Your task to perform on an android device: open app "Airtel Thanks" Image 0: 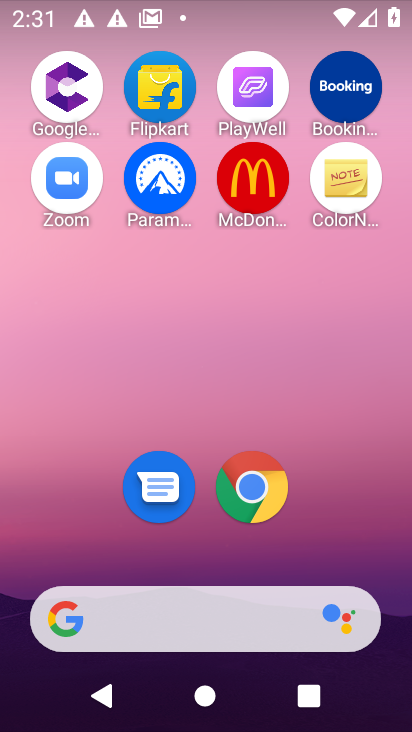
Step 0: press home button
Your task to perform on an android device: open app "Airtel Thanks" Image 1: 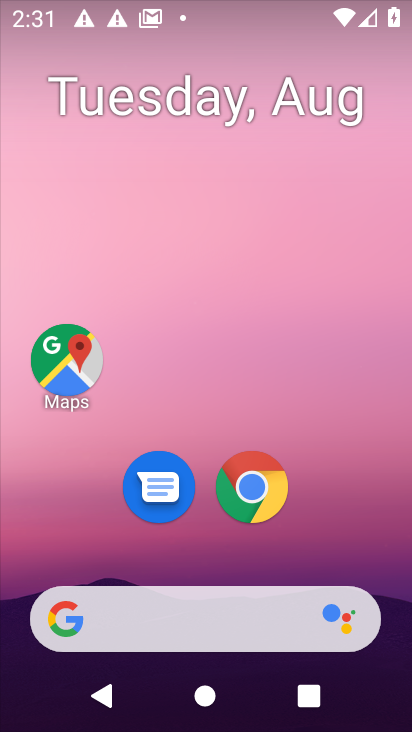
Step 1: drag from (185, 602) to (223, 14)
Your task to perform on an android device: open app "Airtel Thanks" Image 2: 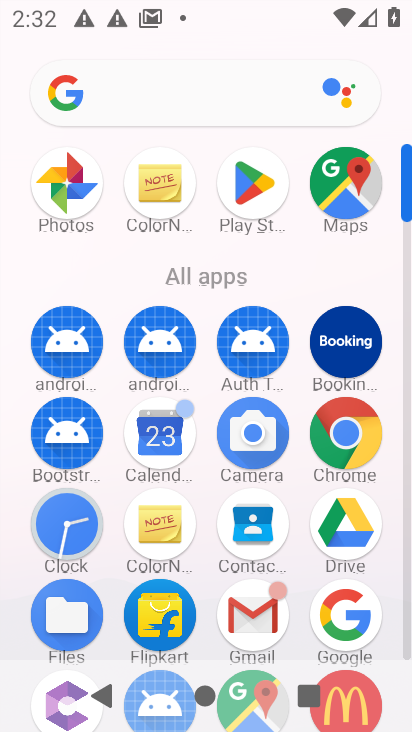
Step 2: click (253, 192)
Your task to perform on an android device: open app "Airtel Thanks" Image 3: 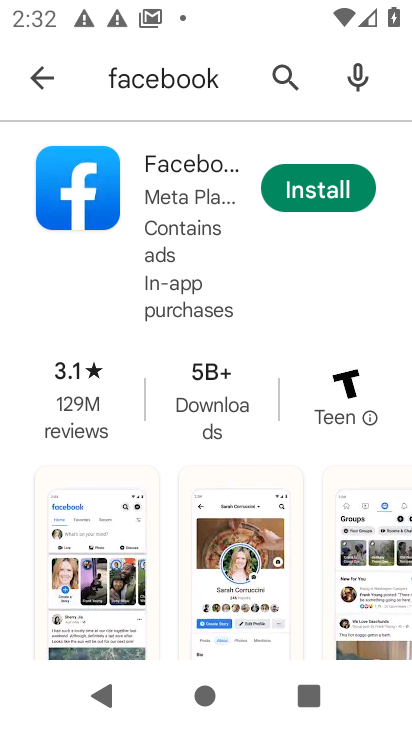
Step 3: press back button
Your task to perform on an android device: open app "Airtel Thanks" Image 4: 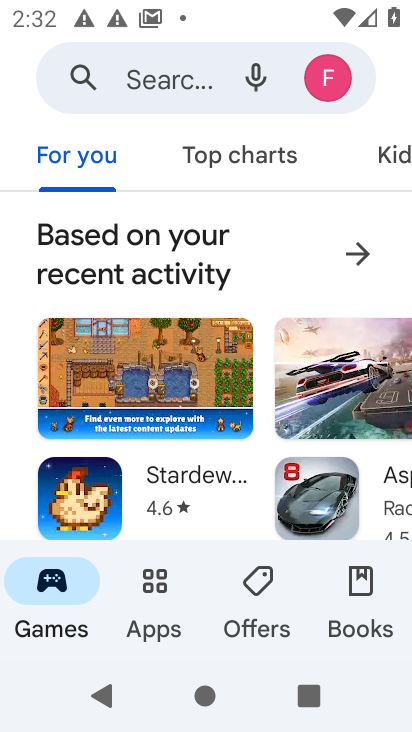
Step 4: click (203, 81)
Your task to perform on an android device: open app "Airtel Thanks" Image 5: 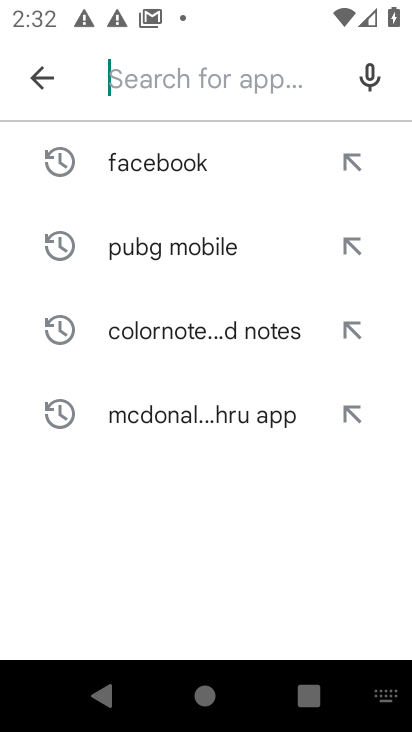
Step 5: type "Airtel Thanks"
Your task to perform on an android device: open app "Airtel Thanks" Image 6: 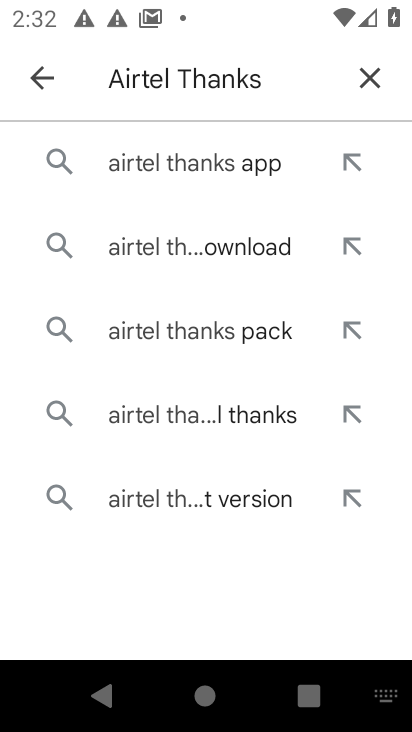
Step 6: click (200, 165)
Your task to perform on an android device: open app "Airtel Thanks" Image 7: 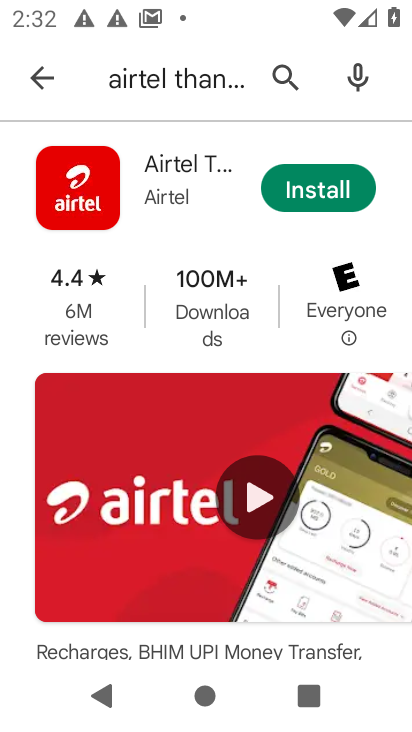
Step 7: task complete